Your task to perform on an android device: Go to CNN.com Image 0: 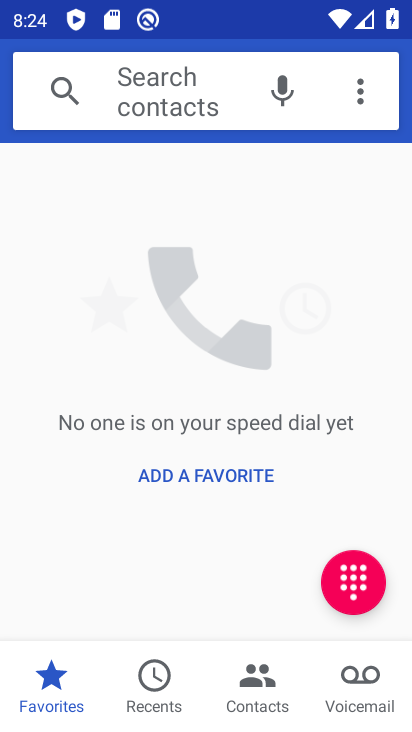
Step 0: press home button
Your task to perform on an android device: Go to CNN.com Image 1: 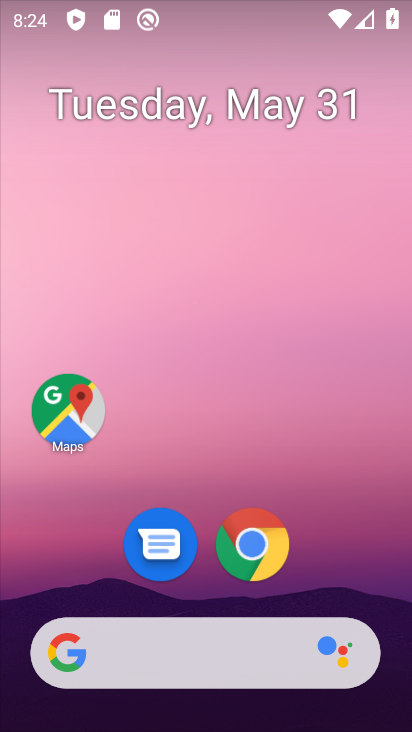
Step 1: click (266, 520)
Your task to perform on an android device: Go to CNN.com Image 2: 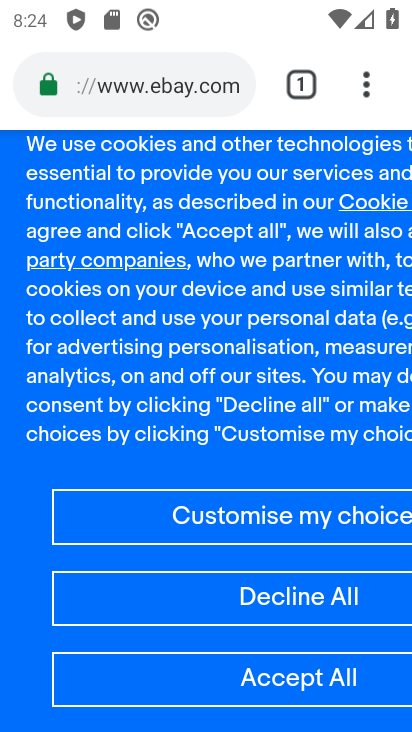
Step 2: click (187, 88)
Your task to perform on an android device: Go to CNN.com Image 3: 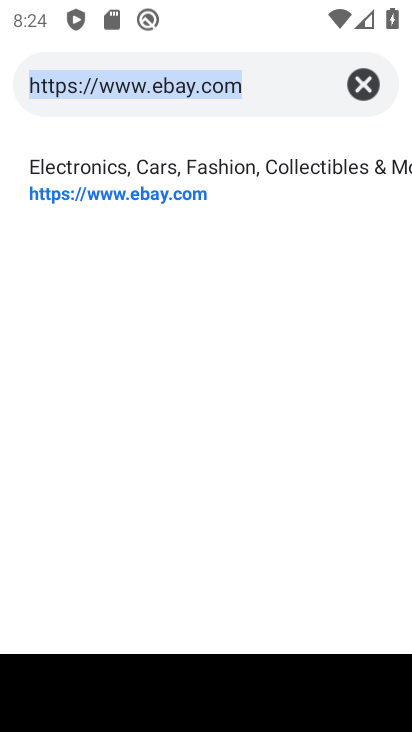
Step 3: type "CNN.com"
Your task to perform on an android device: Go to CNN.com Image 4: 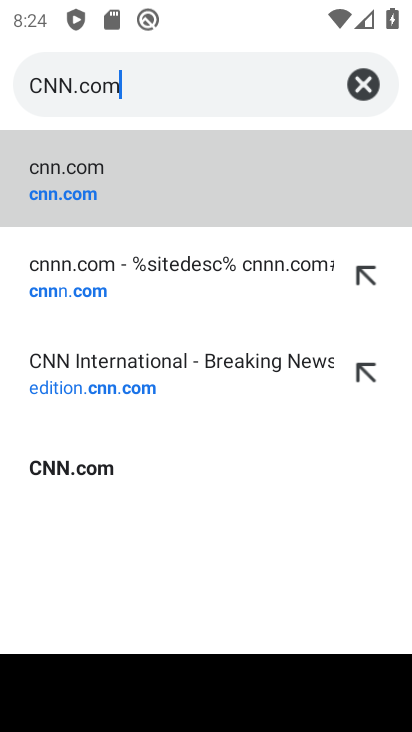
Step 4: click (128, 187)
Your task to perform on an android device: Go to CNN.com Image 5: 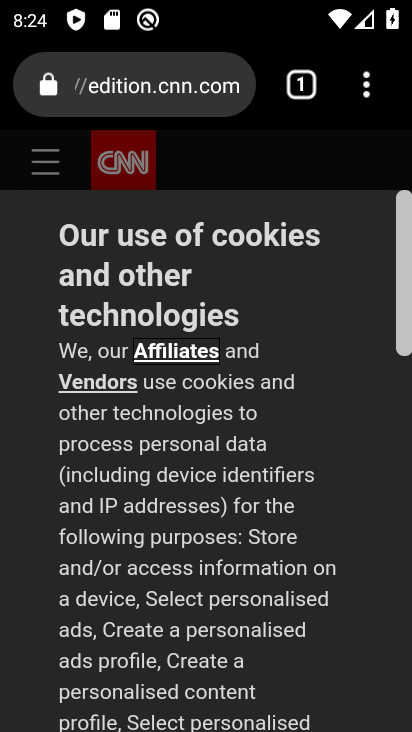
Step 5: task complete